Your task to perform on an android device: Go to Android settings Image 0: 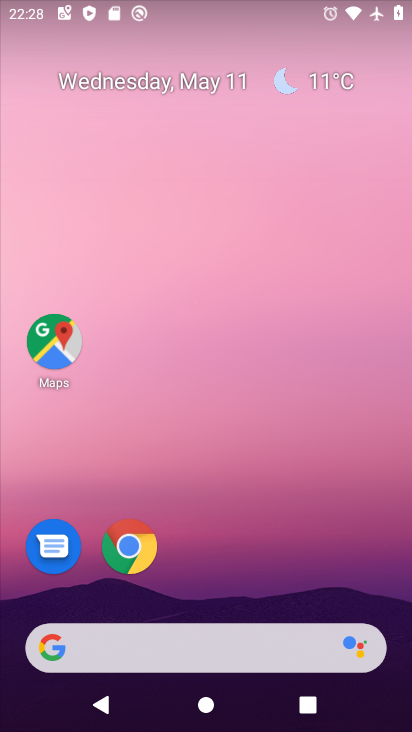
Step 0: drag from (393, 606) to (312, 27)
Your task to perform on an android device: Go to Android settings Image 1: 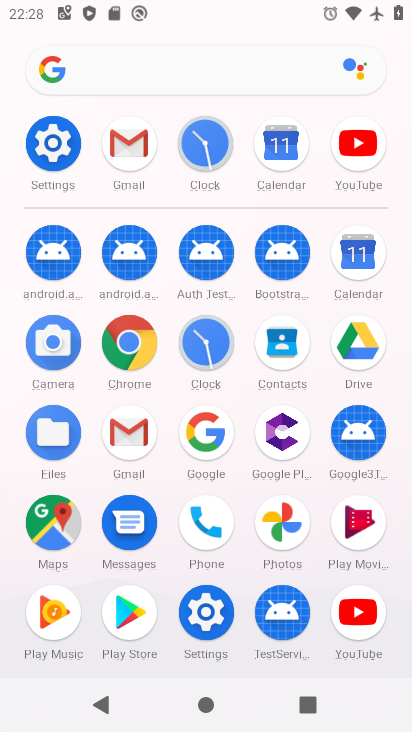
Step 1: click (203, 612)
Your task to perform on an android device: Go to Android settings Image 2: 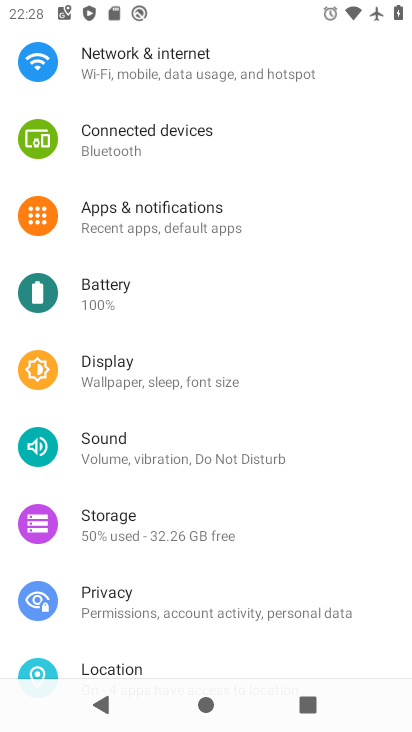
Step 2: drag from (315, 560) to (286, 188)
Your task to perform on an android device: Go to Android settings Image 3: 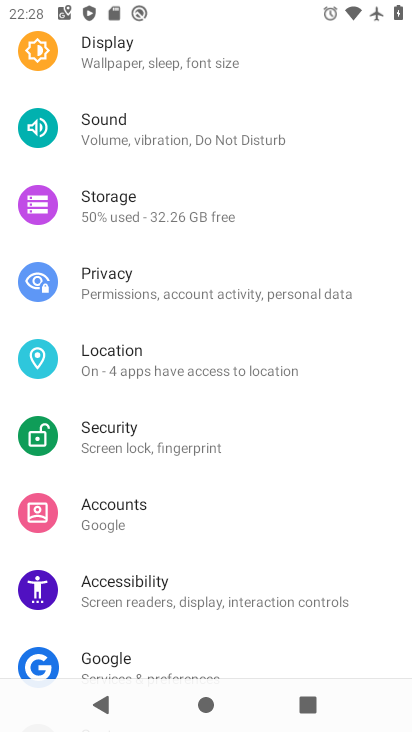
Step 3: drag from (343, 600) to (333, 187)
Your task to perform on an android device: Go to Android settings Image 4: 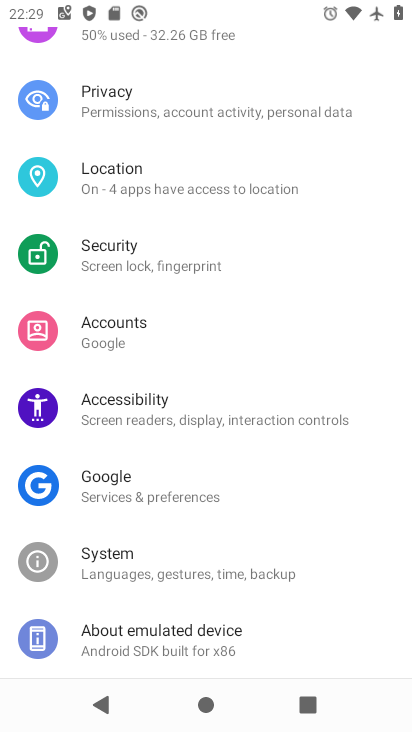
Step 4: click (172, 630)
Your task to perform on an android device: Go to Android settings Image 5: 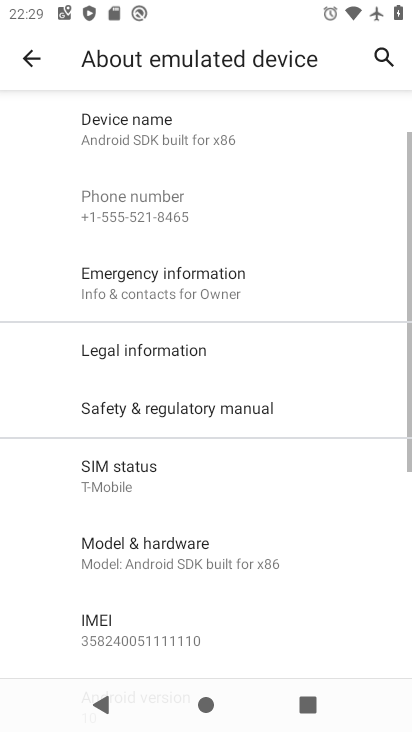
Step 5: task complete